Your task to perform on an android device: clear history in the chrome app Image 0: 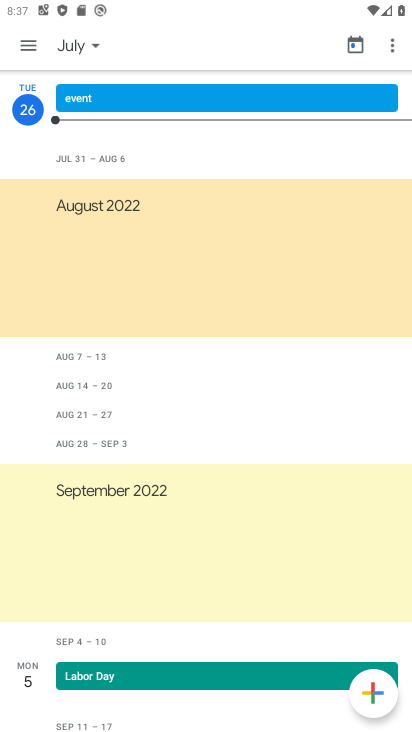
Step 0: press home button
Your task to perform on an android device: clear history in the chrome app Image 1: 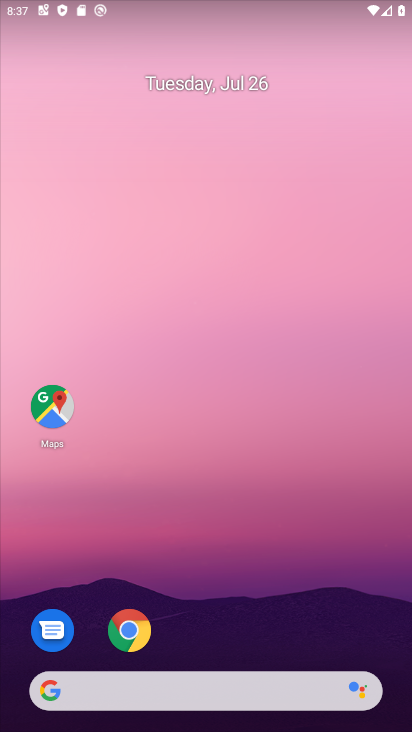
Step 1: click (141, 631)
Your task to perform on an android device: clear history in the chrome app Image 2: 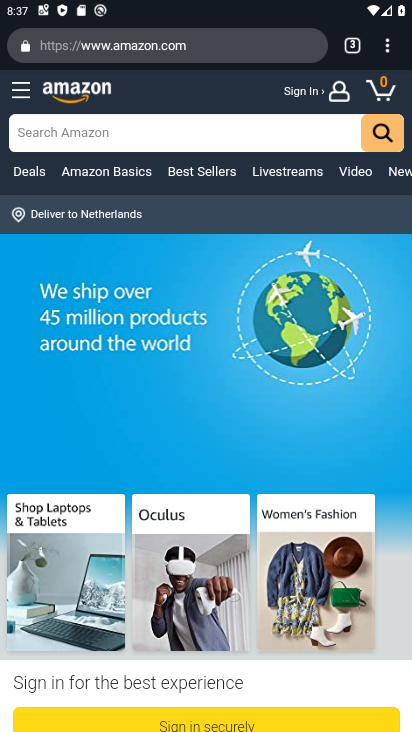
Step 2: click (390, 41)
Your task to perform on an android device: clear history in the chrome app Image 3: 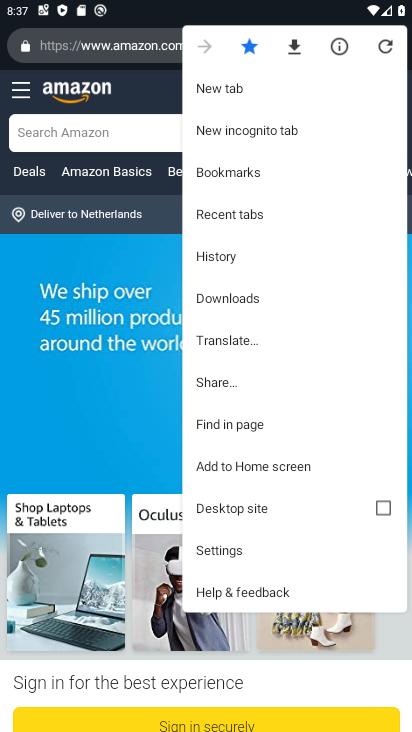
Step 3: click (252, 260)
Your task to perform on an android device: clear history in the chrome app Image 4: 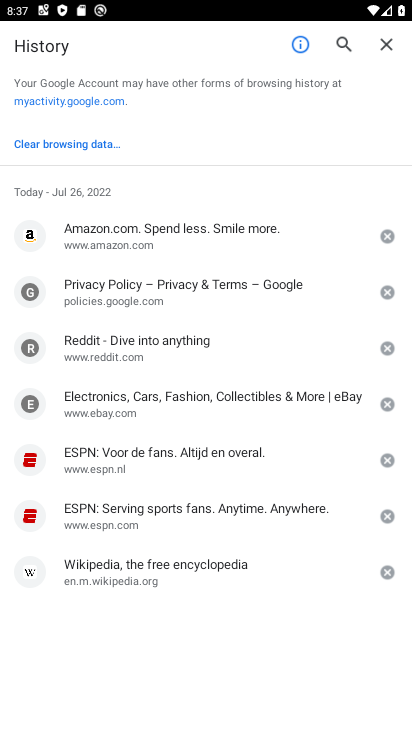
Step 4: click (86, 149)
Your task to perform on an android device: clear history in the chrome app Image 5: 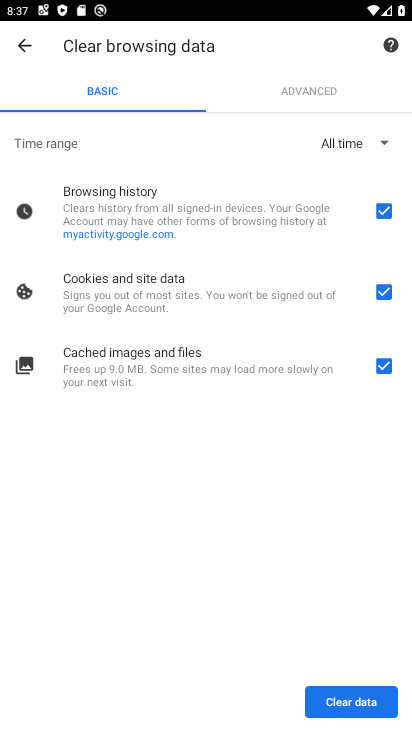
Step 5: click (356, 705)
Your task to perform on an android device: clear history in the chrome app Image 6: 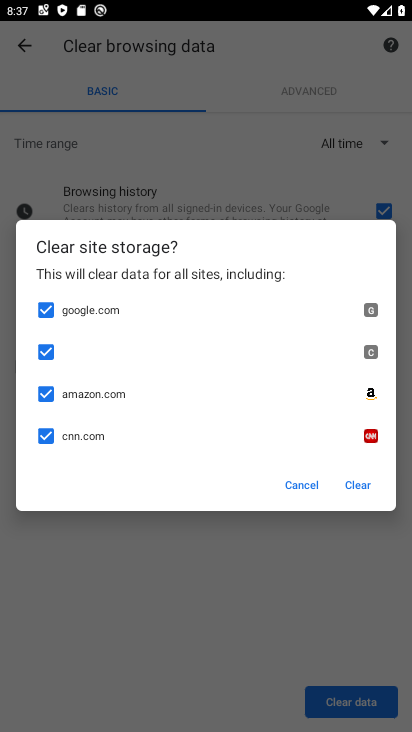
Step 6: click (365, 483)
Your task to perform on an android device: clear history in the chrome app Image 7: 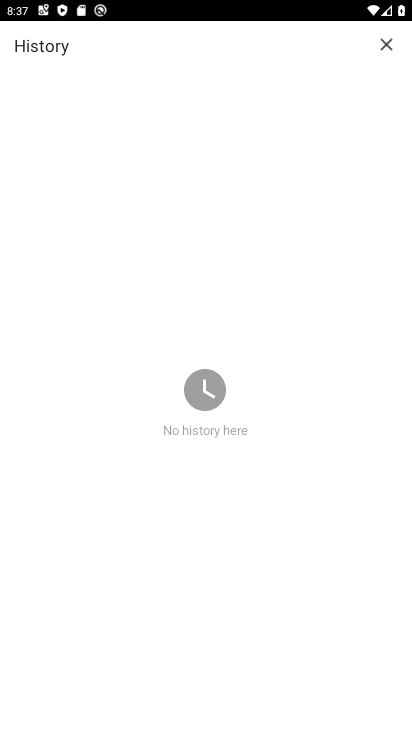
Step 7: task complete